Your task to perform on an android device: Do I have any events today? Image 0: 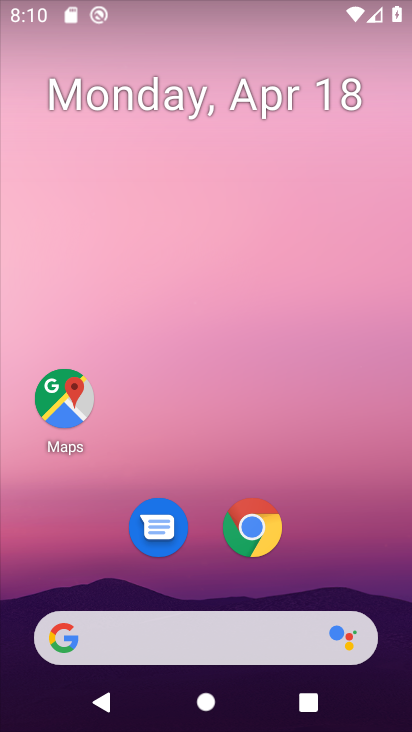
Step 0: drag from (192, 440) to (181, 69)
Your task to perform on an android device: Do I have any events today? Image 1: 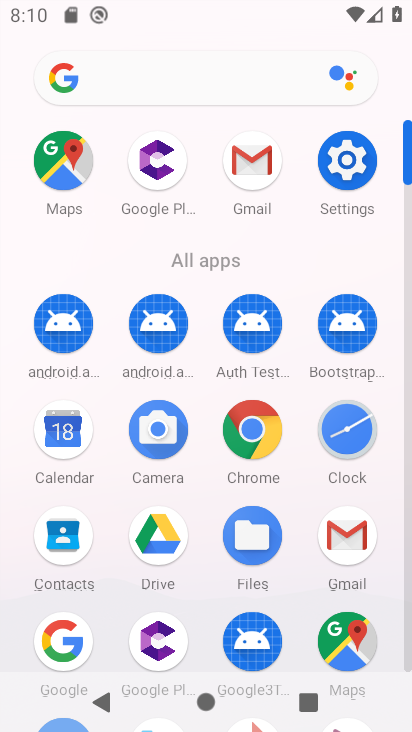
Step 1: click (70, 427)
Your task to perform on an android device: Do I have any events today? Image 2: 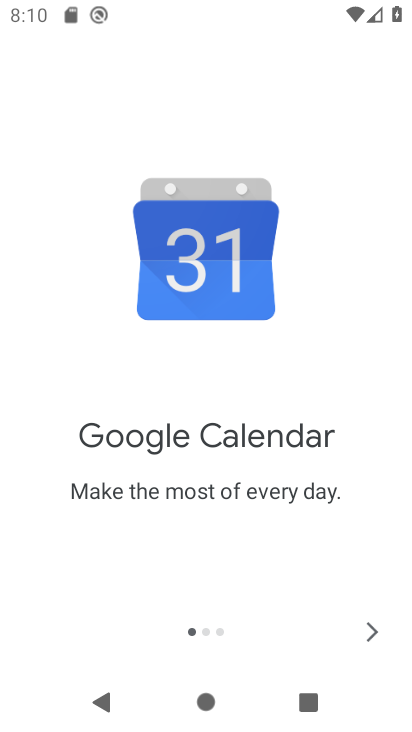
Step 2: click (379, 633)
Your task to perform on an android device: Do I have any events today? Image 3: 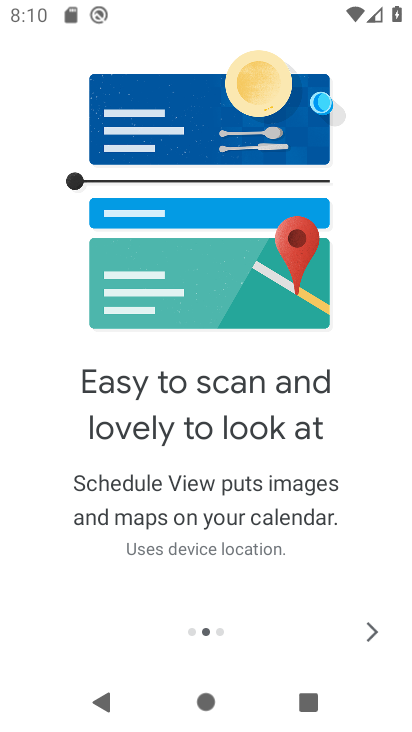
Step 3: click (379, 633)
Your task to perform on an android device: Do I have any events today? Image 4: 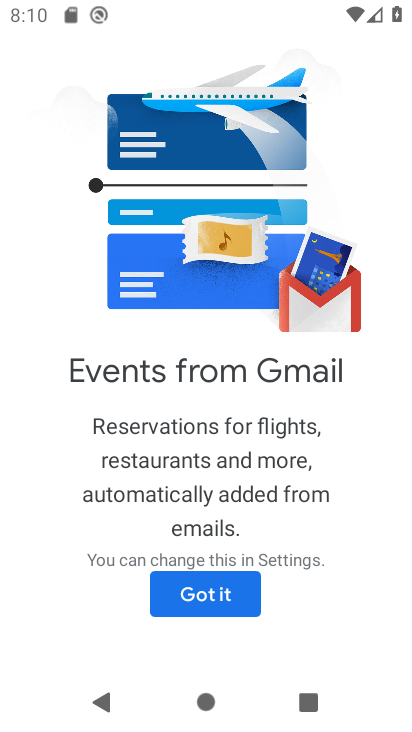
Step 4: click (379, 633)
Your task to perform on an android device: Do I have any events today? Image 5: 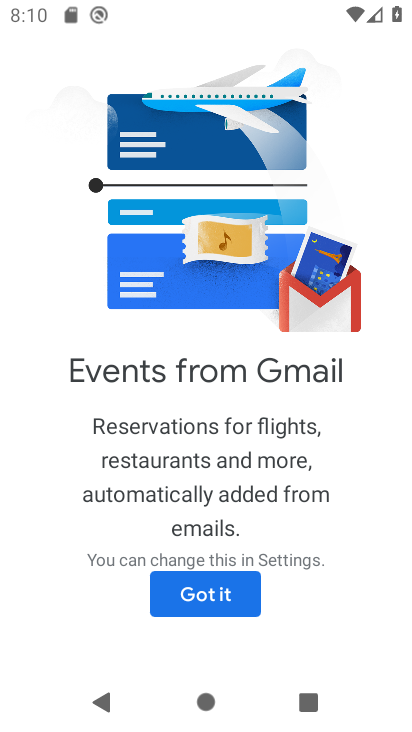
Step 5: click (209, 607)
Your task to perform on an android device: Do I have any events today? Image 6: 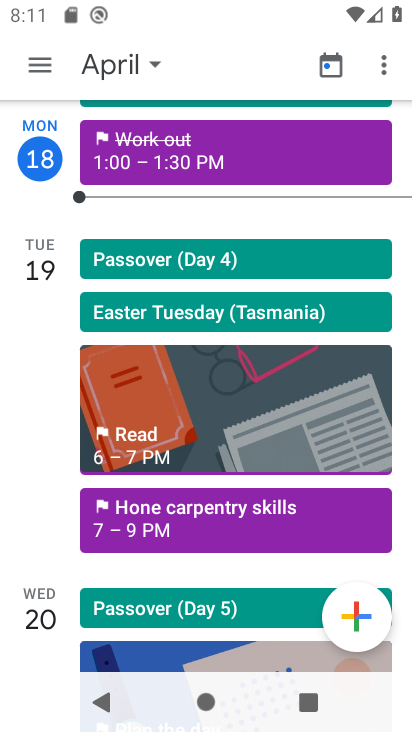
Step 6: click (45, 65)
Your task to perform on an android device: Do I have any events today? Image 7: 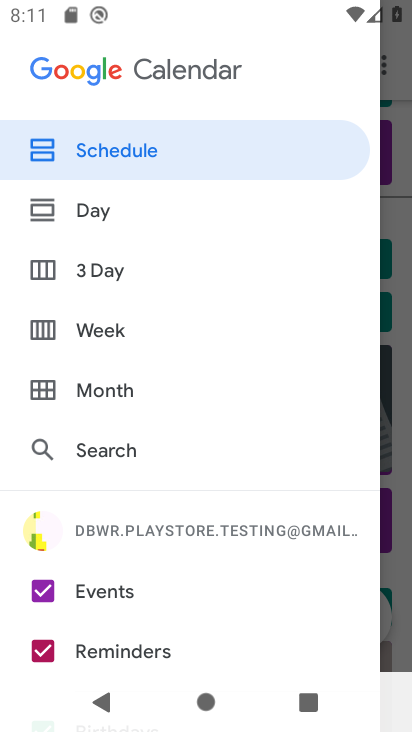
Step 7: click (115, 218)
Your task to perform on an android device: Do I have any events today? Image 8: 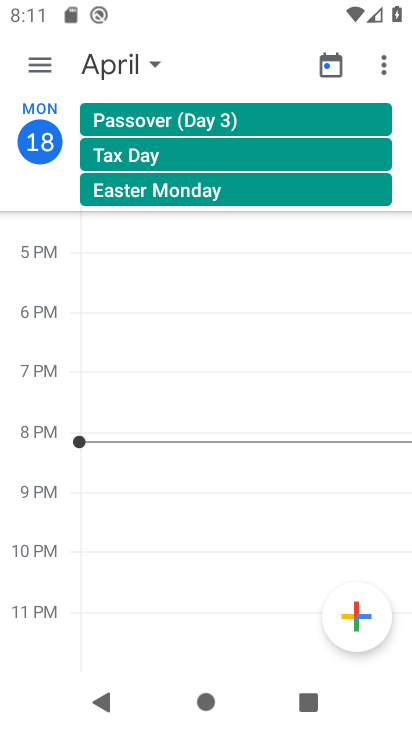
Step 8: drag from (179, 544) to (205, 244)
Your task to perform on an android device: Do I have any events today? Image 9: 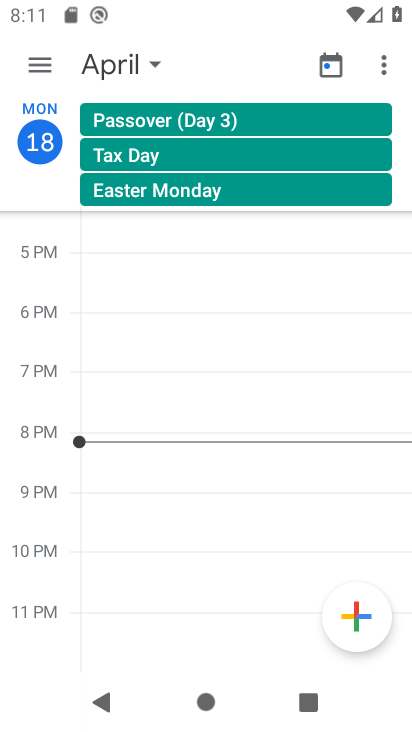
Step 9: drag from (150, 525) to (362, 524)
Your task to perform on an android device: Do I have any events today? Image 10: 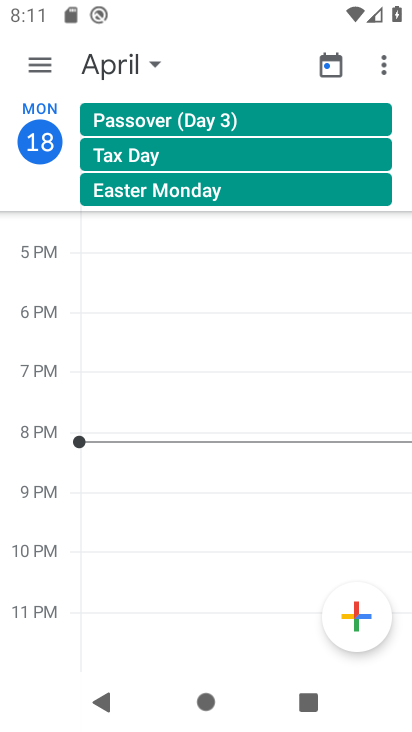
Step 10: drag from (192, 609) to (205, 333)
Your task to perform on an android device: Do I have any events today? Image 11: 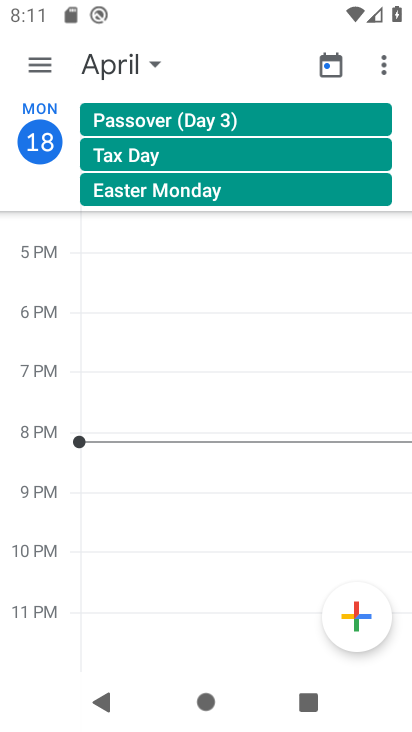
Step 11: click (384, 66)
Your task to perform on an android device: Do I have any events today? Image 12: 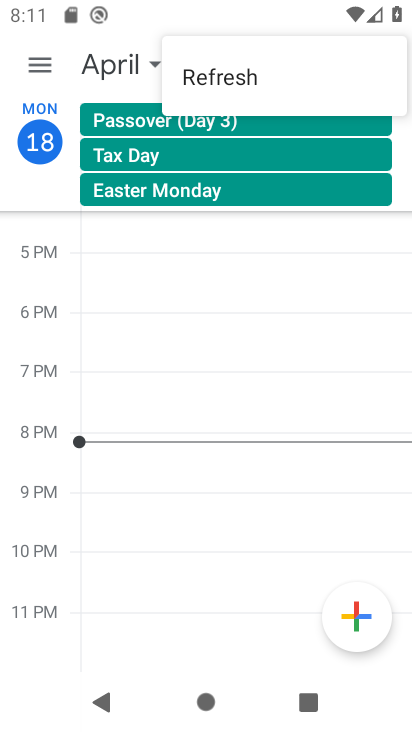
Step 12: click (250, 307)
Your task to perform on an android device: Do I have any events today? Image 13: 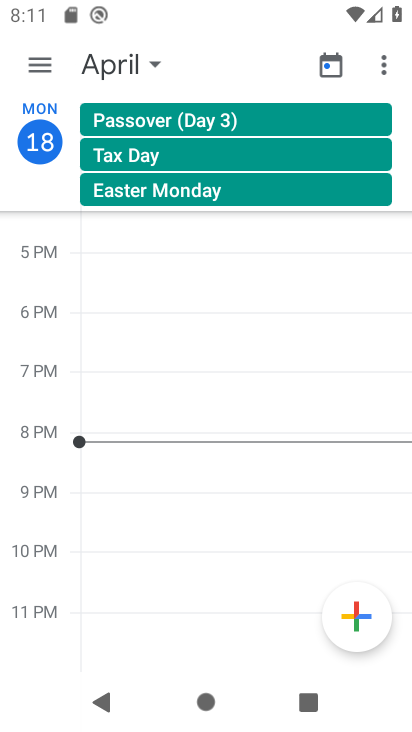
Step 13: click (40, 56)
Your task to perform on an android device: Do I have any events today? Image 14: 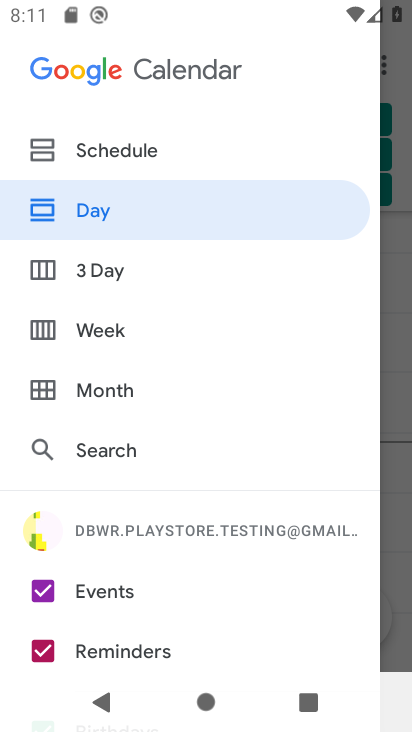
Step 14: click (138, 589)
Your task to perform on an android device: Do I have any events today? Image 15: 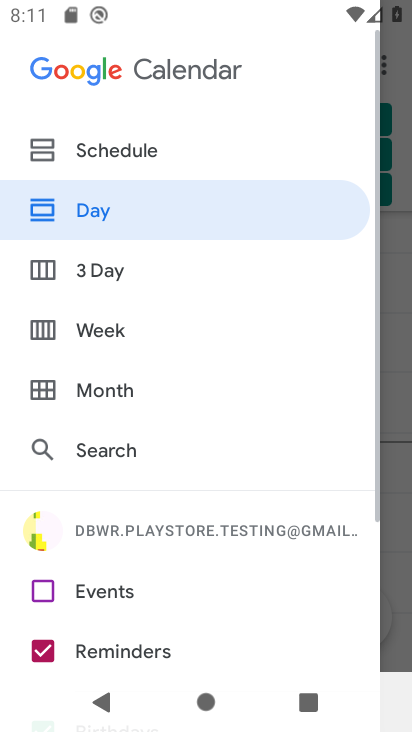
Step 15: click (138, 589)
Your task to perform on an android device: Do I have any events today? Image 16: 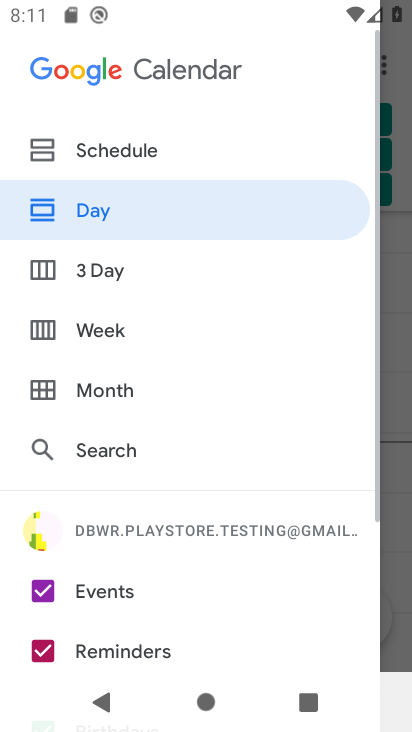
Step 16: task complete